Your task to perform on an android device: turn on the 12-hour format for clock Image 0: 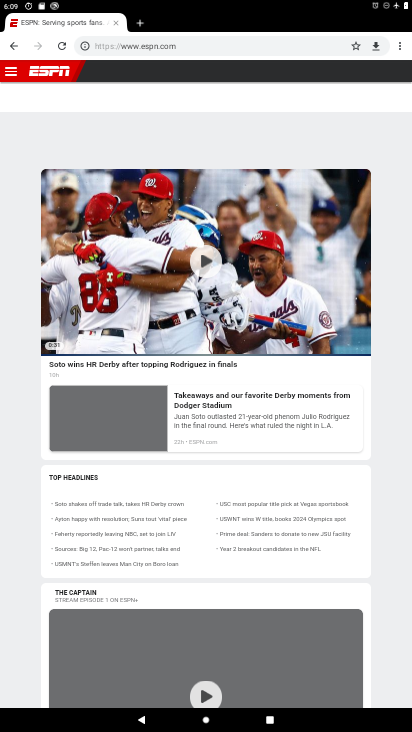
Step 0: press home button
Your task to perform on an android device: turn on the 12-hour format for clock Image 1: 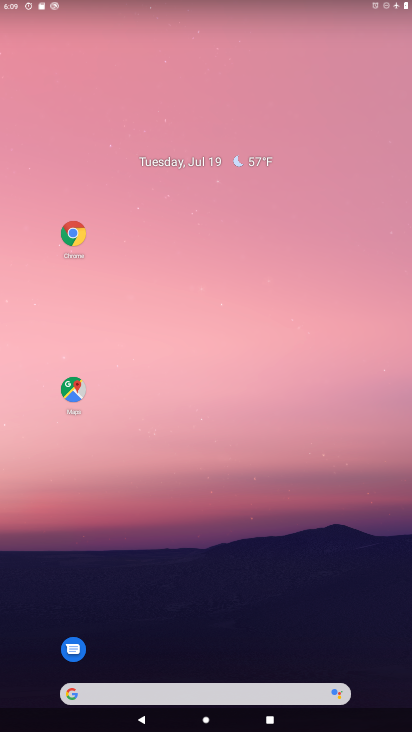
Step 1: drag from (191, 498) to (201, 144)
Your task to perform on an android device: turn on the 12-hour format for clock Image 2: 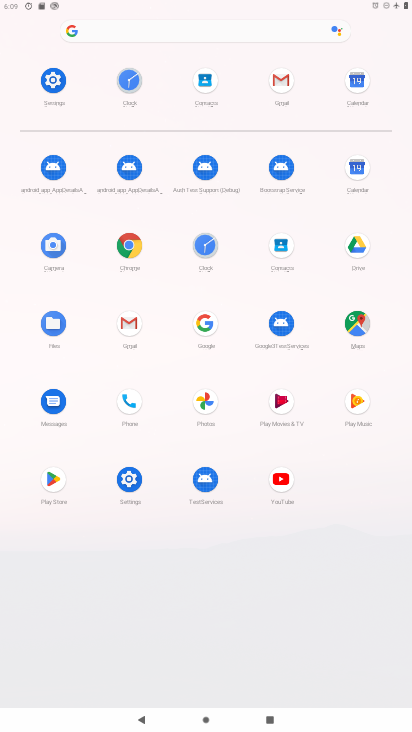
Step 2: click (201, 254)
Your task to perform on an android device: turn on the 12-hour format for clock Image 3: 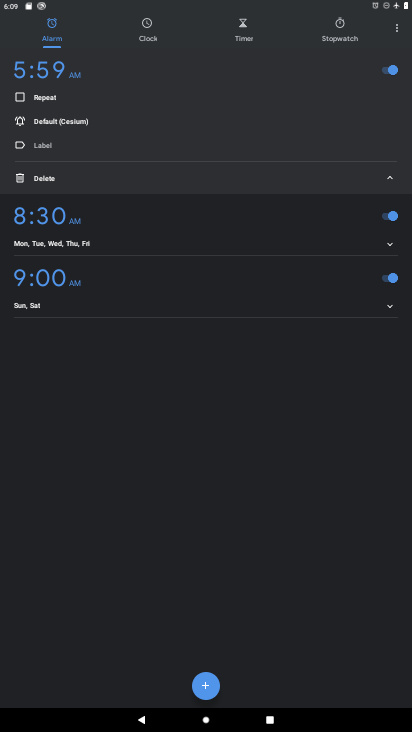
Step 3: click (395, 27)
Your task to perform on an android device: turn on the 12-hour format for clock Image 4: 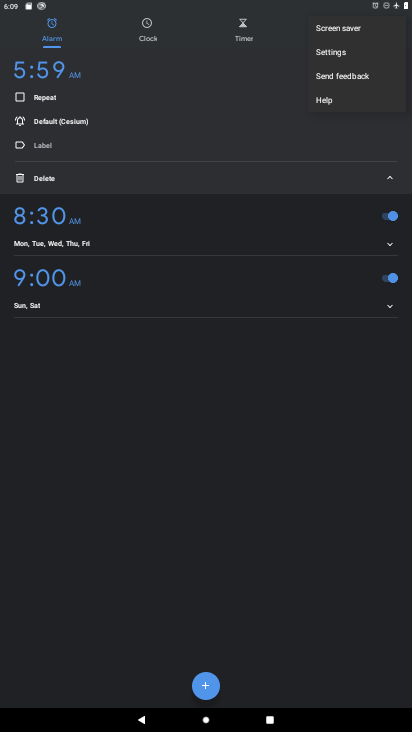
Step 4: click (343, 50)
Your task to perform on an android device: turn on the 12-hour format for clock Image 5: 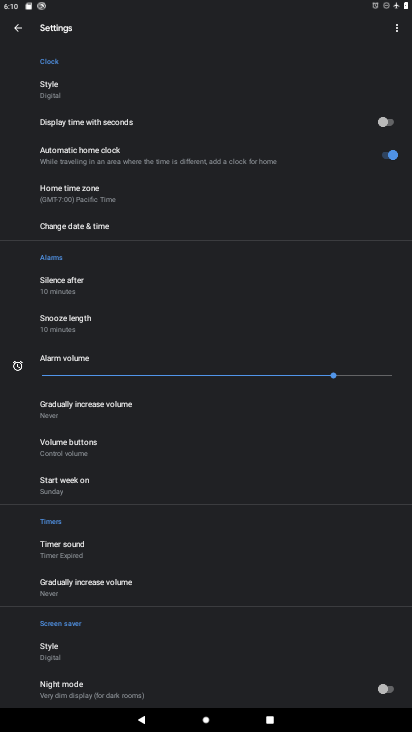
Step 5: click (99, 226)
Your task to perform on an android device: turn on the 12-hour format for clock Image 6: 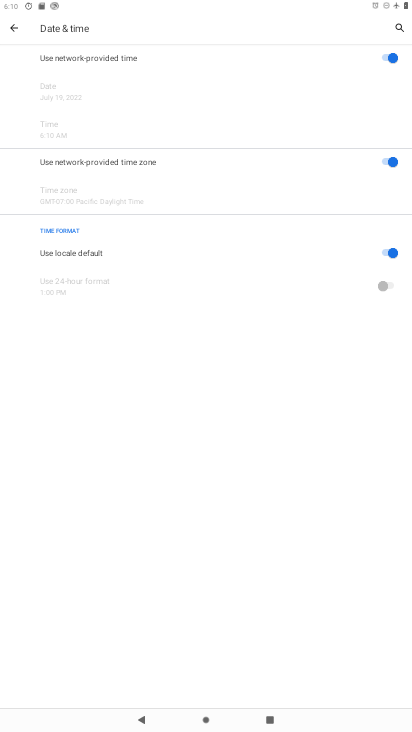
Step 6: task complete